Your task to perform on an android device: turn off sleep mode Image 0: 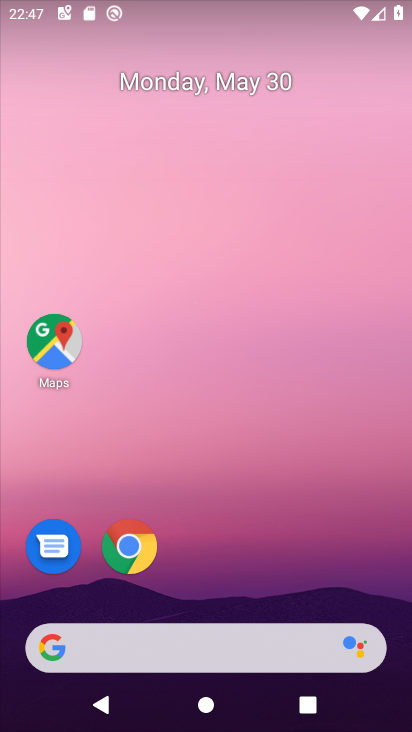
Step 0: drag from (213, 591) to (257, 149)
Your task to perform on an android device: turn off sleep mode Image 1: 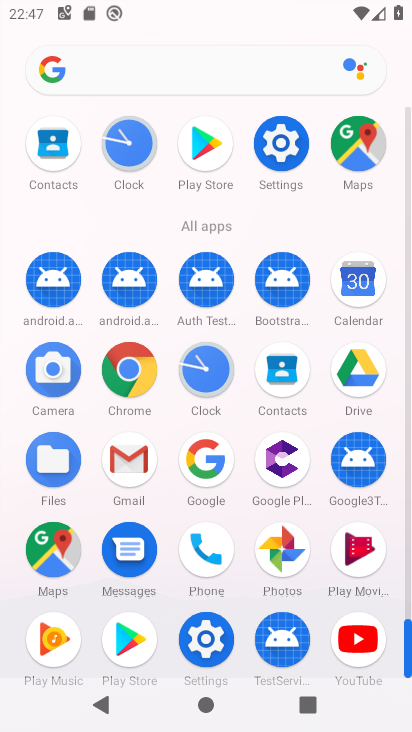
Step 1: click (287, 165)
Your task to perform on an android device: turn off sleep mode Image 2: 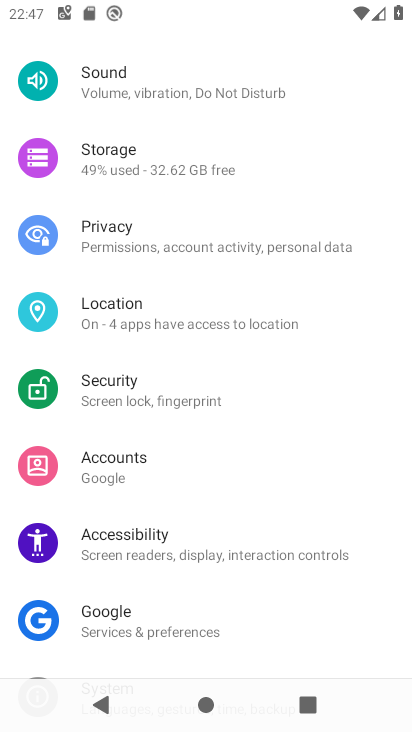
Step 2: drag from (185, 178) to (167, 730)
Your task to perform on an android device: turn off sleep mode Image 3: 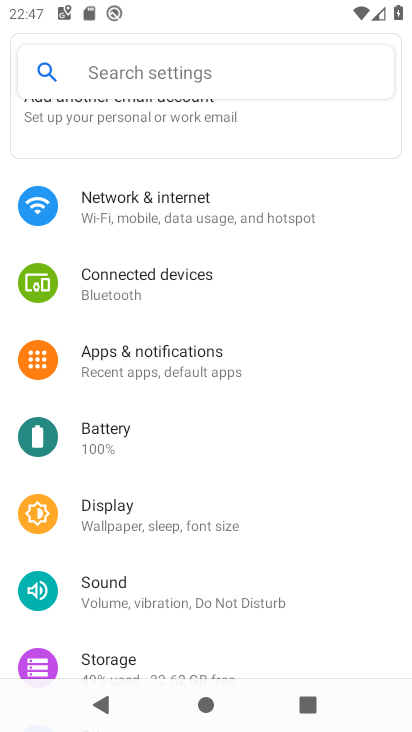
Step 3: click (217, 68)
Your task to perform on an android device: turn off sleep mode Image 4: 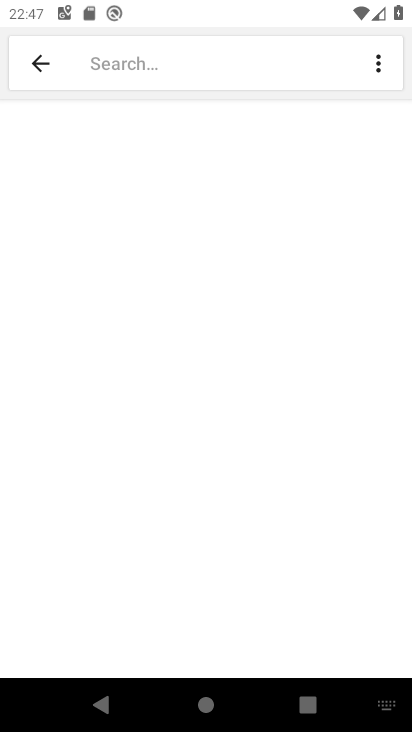
Step 4: type "sleep mode"
Your task to perform on an android device: turn off sleep mode Image 5: 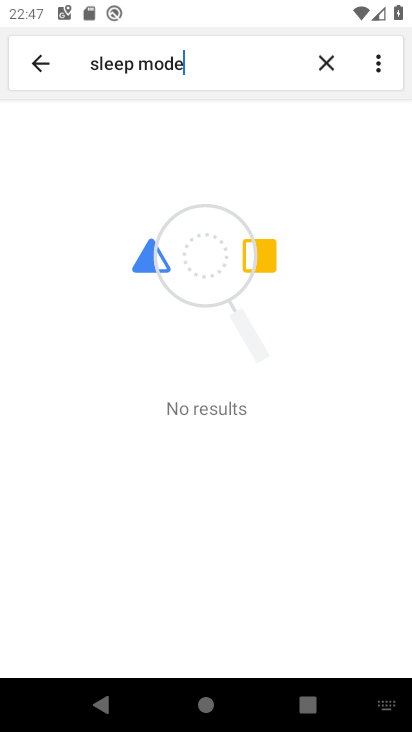
Step 5: task complete